Your task to perform on an android device: Open sound settings Image 0: 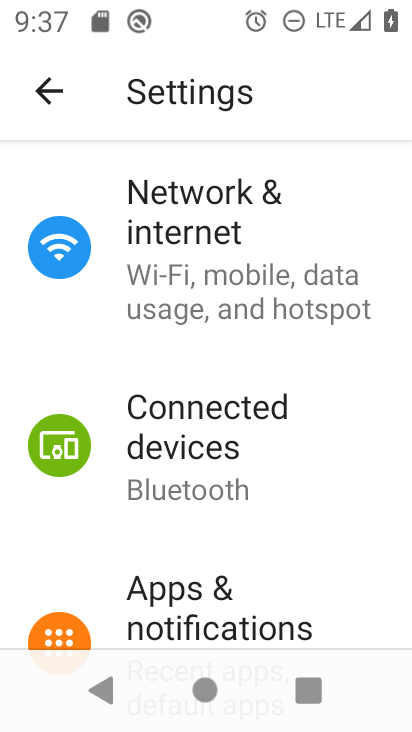
Step 0: press home button
Your task to perform on an android device: Open sound settings Image 1: 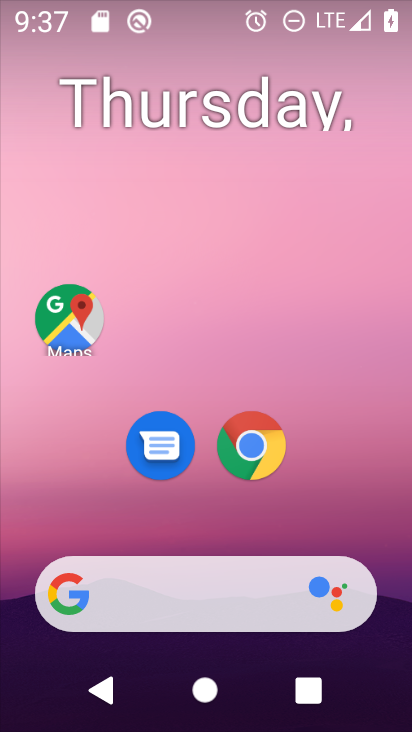
Step 1: drag from (398, 632) to (235, 56)
Your task to perform on an android device: Open sound settings Image 2: 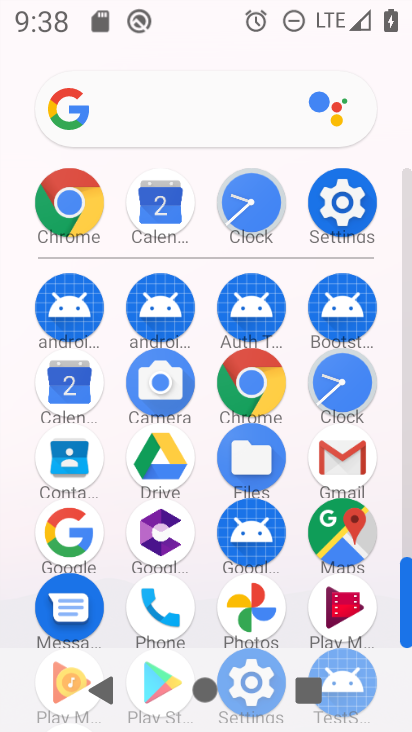
Step 2: click (349, 202)
Your task to perform on an android device: Open sound settings Image 3: 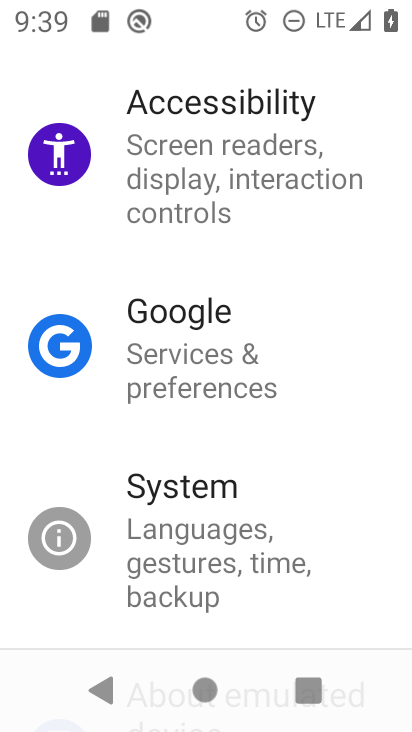
Step 3: drag from (201, 139) to (191, 547)
Your task to perform on an android device: Open sound settings Image 4: 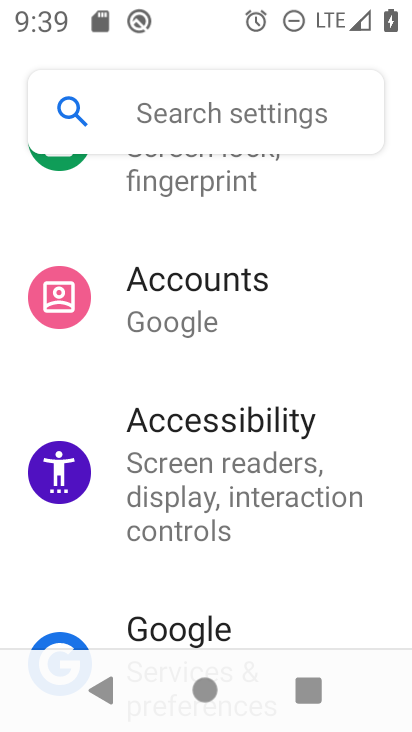
Step 4: drag from (180, 218) to (154, 605)
Your task to perform on an android device: Open sound settings Image 5: 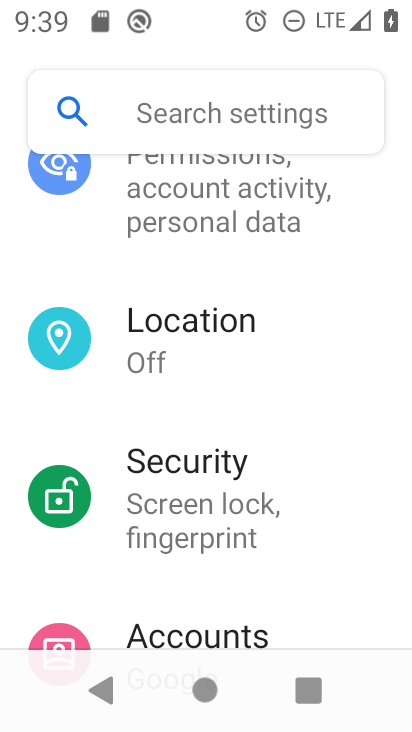
Step 5: drag from (174, 215) to (189, 531)
Your task to perform on an android device: Open sound settings Image 6: 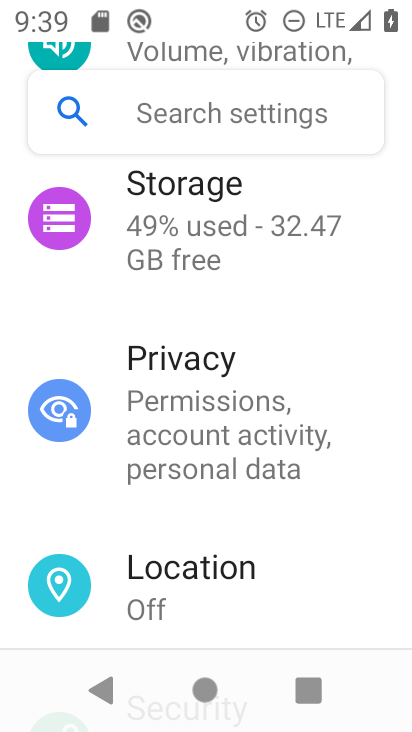
Step 6: drag from (193, 191) to (220, 555)
Your task to perform on an android device: Open sound settings Image 7: 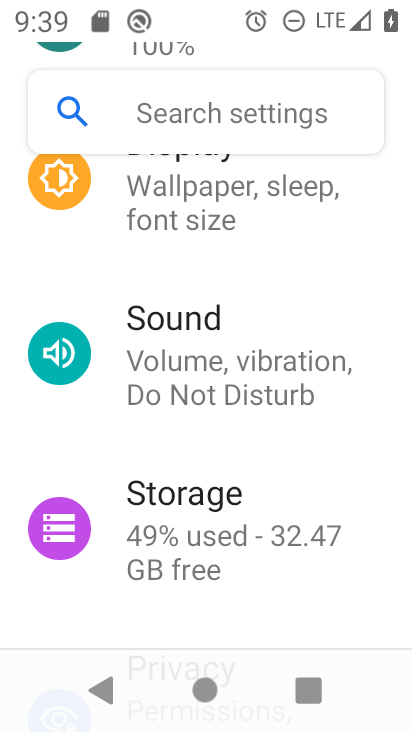
Step 7: click (199, 381)
Your task to perform on an android device: Open sound settings Image 8: 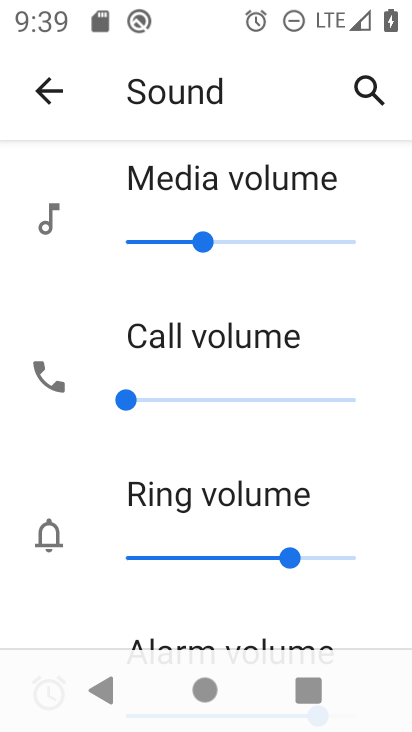
Step 8: task complete